Your task to perform on an android device: make emails show in primary in the gmail app Image 0: 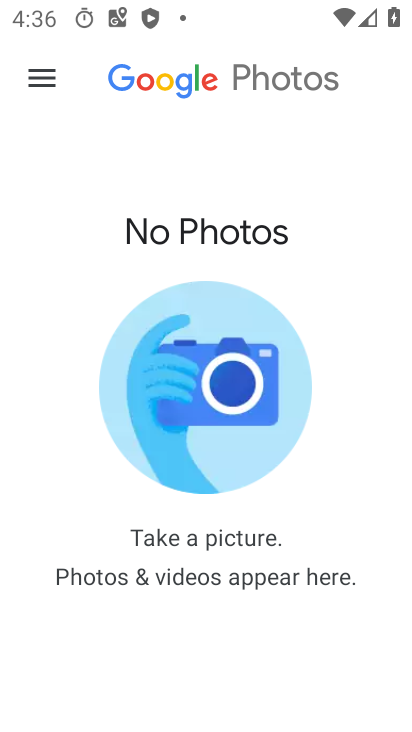
Step 0: click (45, 81)
Your task to perform on an android device: make emails show in primary in the gmail app Image 1: 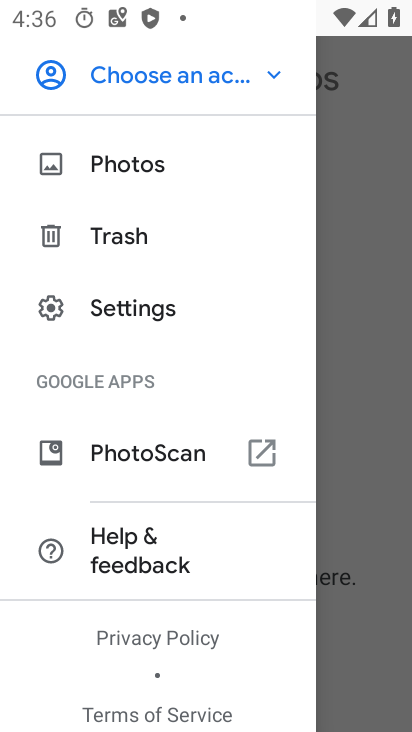
Step 1: press home button
Your task to perform on an android device: make emails show in primary in the gmail app Image 2: 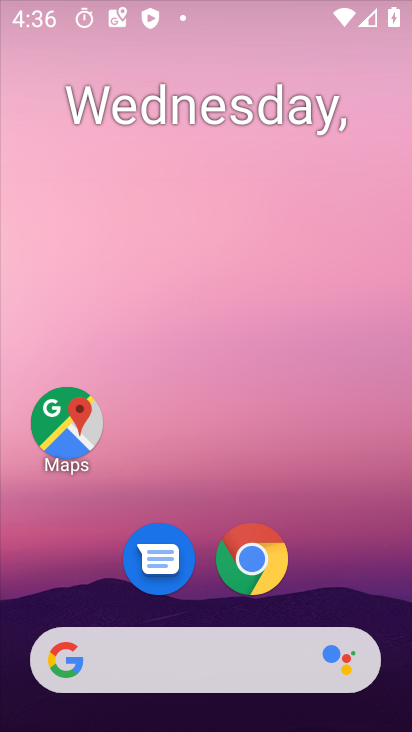
Step 2: drag from (342, 585) to (224, 46)
Your task to perform on an android device: make emails show in primary in the gmail app Image 3: 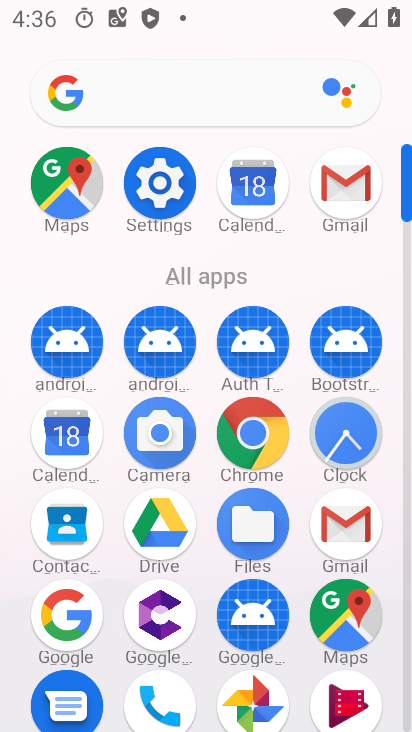
Step 3: click (349, 527)
Your task to perform on an android device: make emails show in primary in the gmail app Image 4: 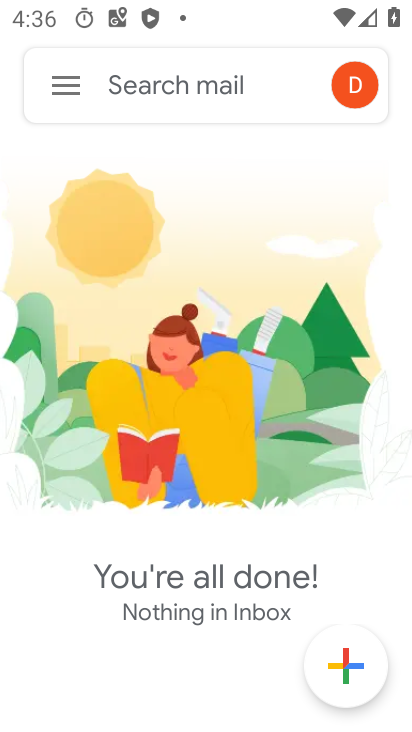
Step 4: click (71, 83)
Your task to perform on an android device: make emails show in primary in the gmail app Image 5: 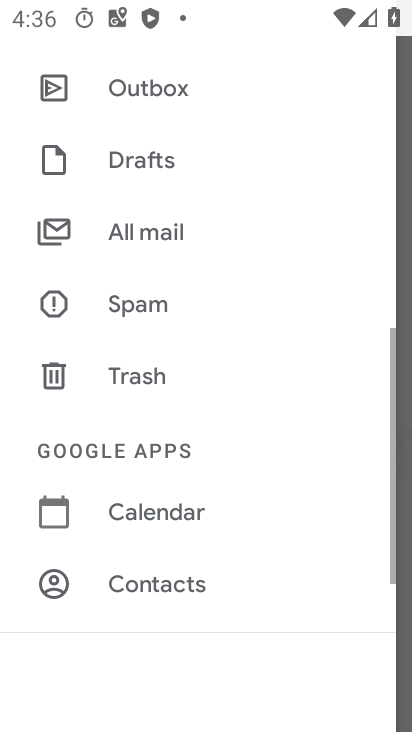
Step 5: task complete